Your task to perform on an android device: make emails show in primary in the gmail app Image 0: 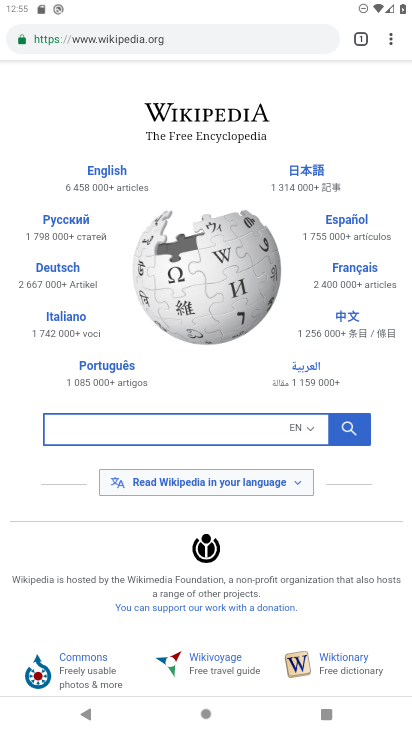
Step 0: press home button
Your task to perform on an android device: make emails show in primary in the gmail app Image 1: 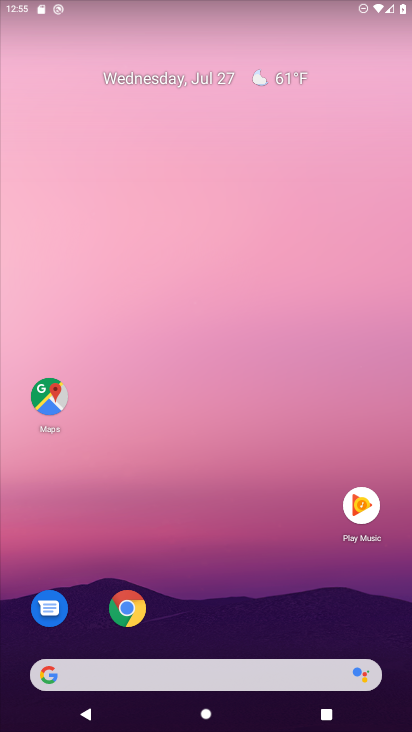
Step 1: drag from (308, 596) to (293, 140)
Your task to perform on an android device: make emails show in primary in the gmail app Image 2: 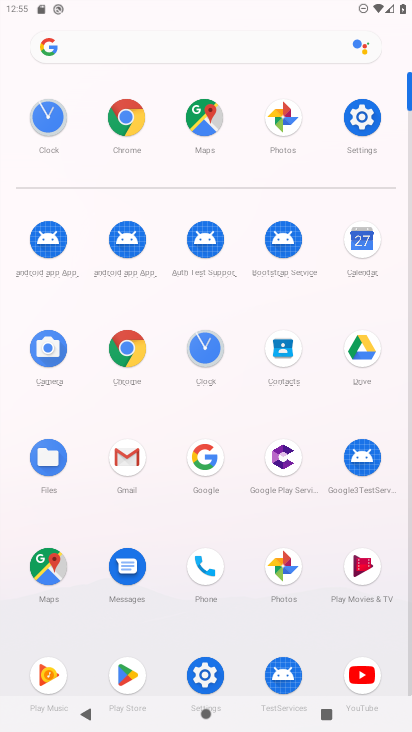
Step 2: click (118, 461)
Your task to perform on an android device: make emails show in primary in the gmail app Image 3: 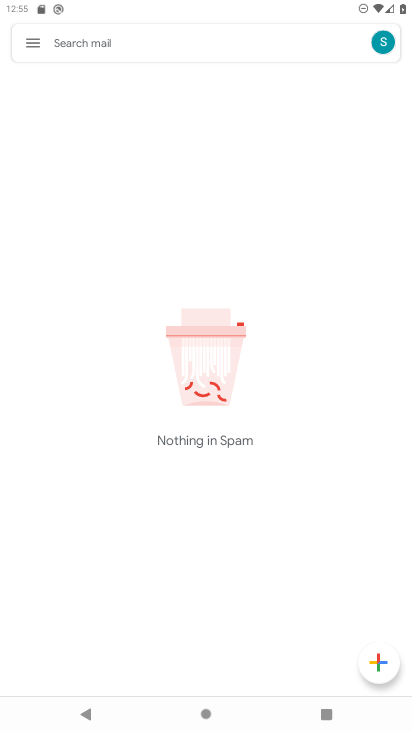
Step 3: click (35, 42)
Your task to perform on an android device: make emails show in primary in the gmail app Image 4: 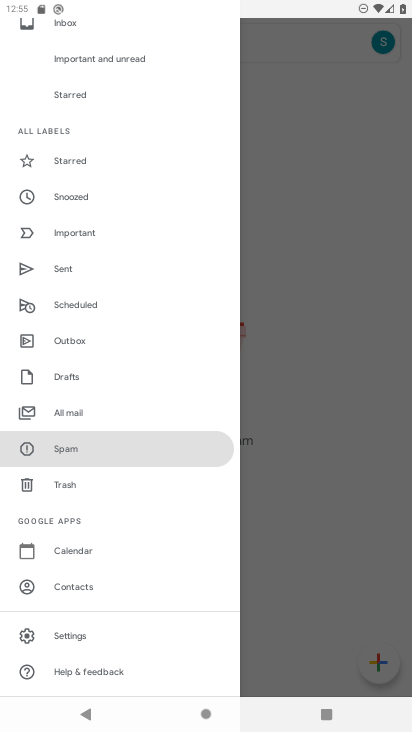
Step 4: drag from (146, 333) to (153, 287)
Your task to perform on an android device: make emails show in primary in the gmail app Image 5: 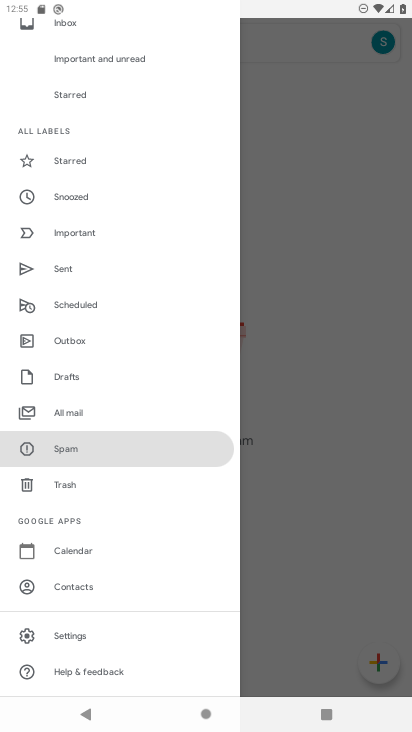
Step 5: click (121, 650)
Your task to perform on an android device: make emails show in primary in the gmail app Image 6: 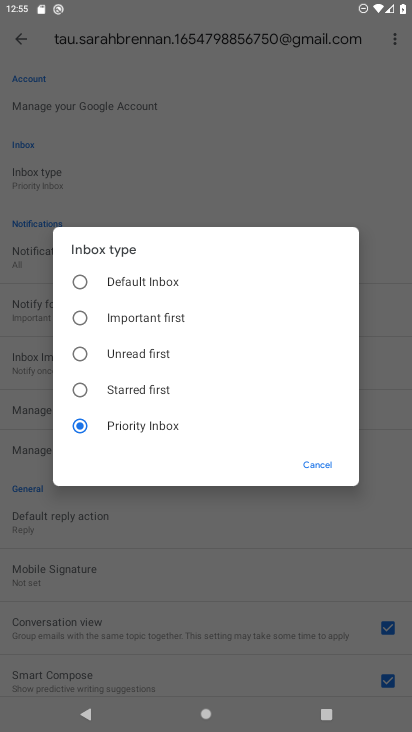
Step 6: click (153, 280)
Your task to perform on an android device: make emails show in primary in the gmail app Image 7: 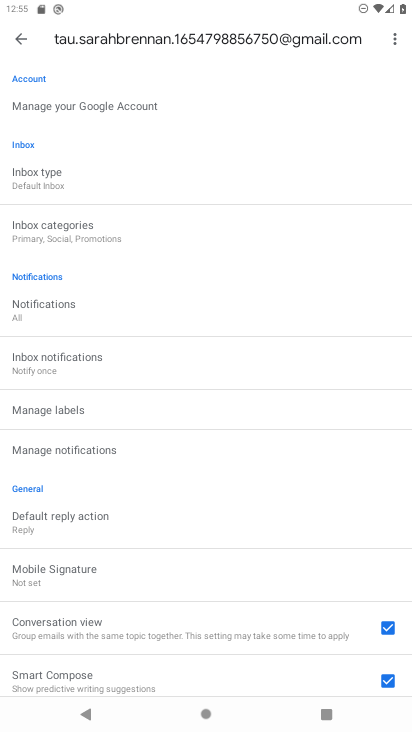
Step 7: click (99, 233)
Your task to perform on an android device: make emails show in primary in the gmail app Image 8: 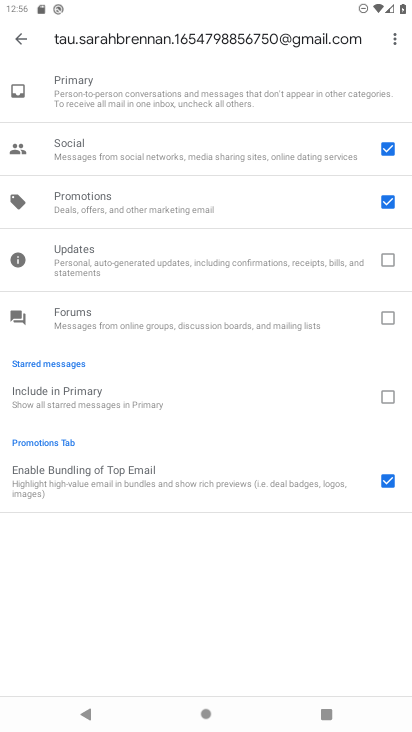
Step 8: click (386, 199)
Your task to perform on an android device: make emails show in primary in the gmail app Image 9: 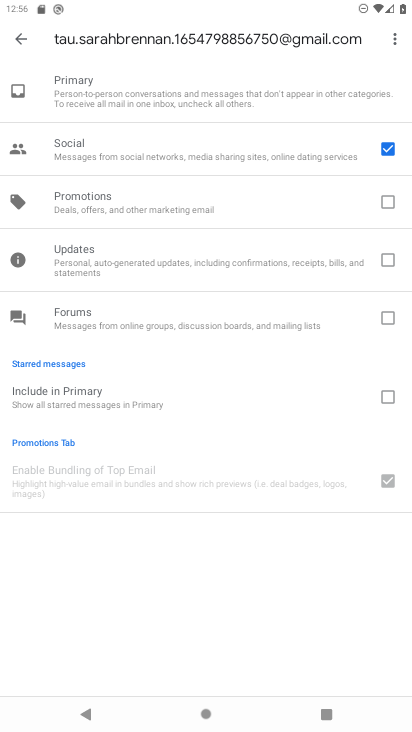
Step 9: click (387, 151)
Your task to perform on an android device: make emails show in primary in the gmail app Image 10: 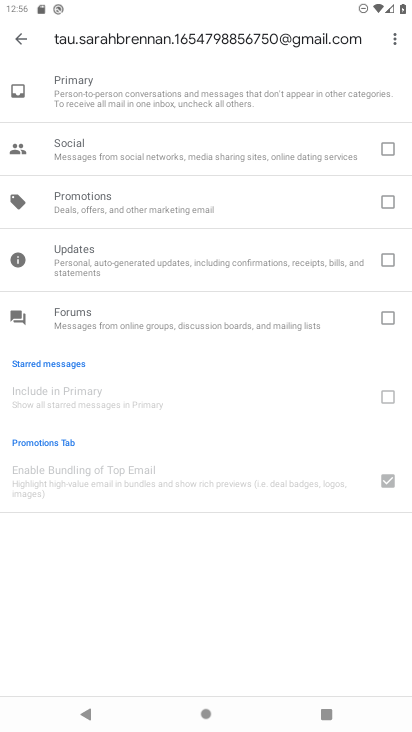
Step 10: task complete